Your task to perform on an android device: turn on bluetooth scan Image 0: 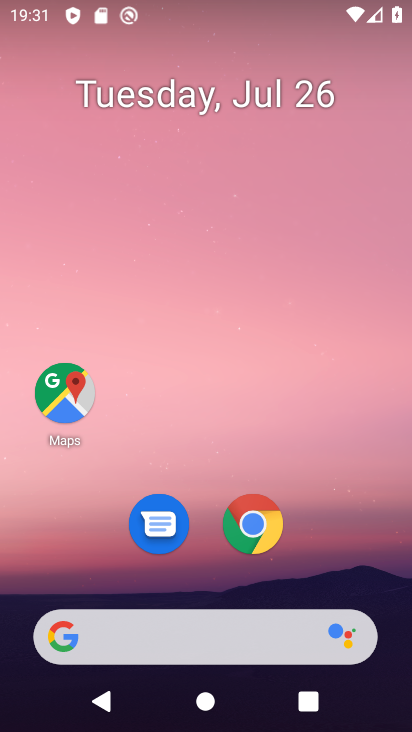
Step 0: press home button
Your task to perform on an android device: turn on bluetooth scan Image 1: 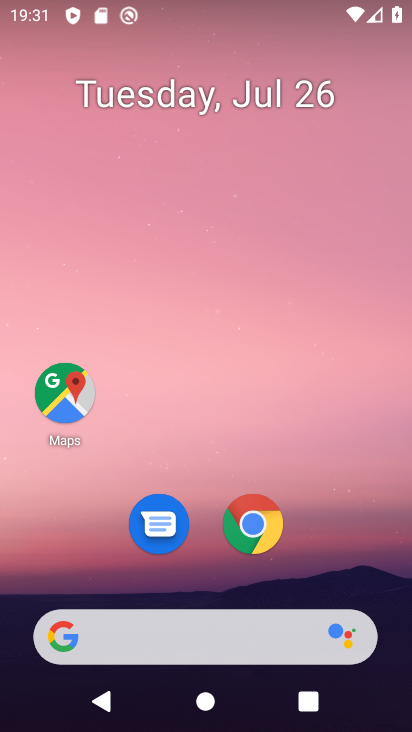
Step 1: drag from (205, 639) to (328, 174)
Your task to perform on an android device: turn on bluetooth scan Image 2: 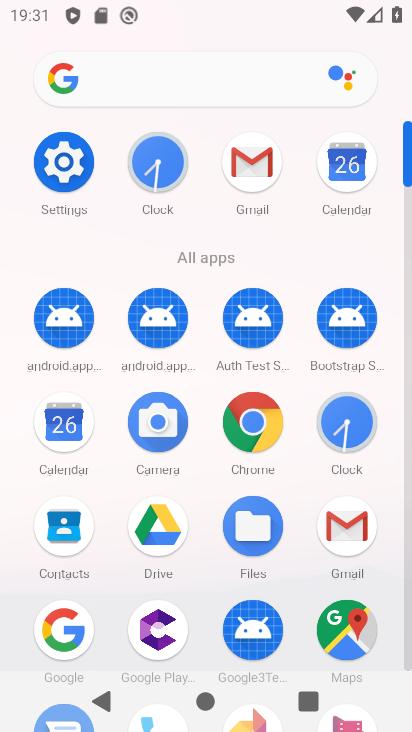
Step 2: click (63, 167)
Your task to perform on an android device: turn on bluetooth scan Image 3: 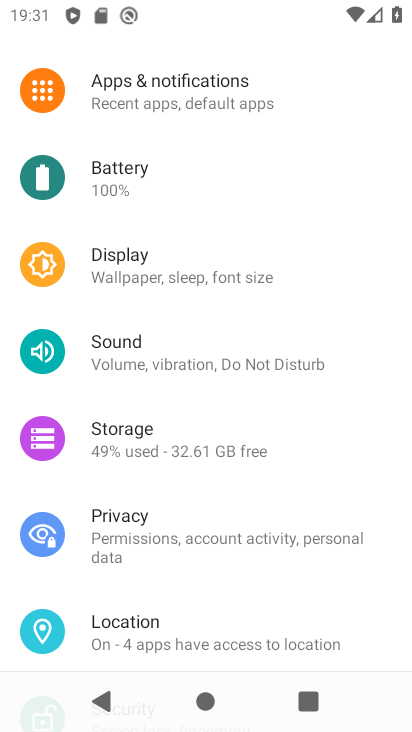
Step 3: click (155, 616)
Your task to perform on an android device: turn on bluetooth scan Image 4: 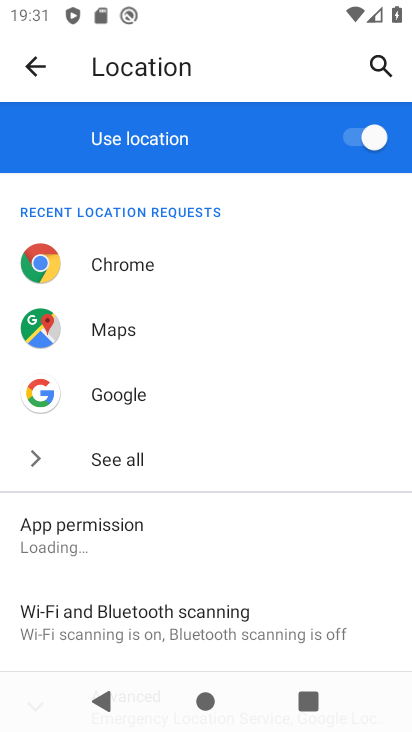
Step 4: drag from (250, 563) to (344, 236)
Your task to perform on an android device: turn on bluetooth scan Image 5: 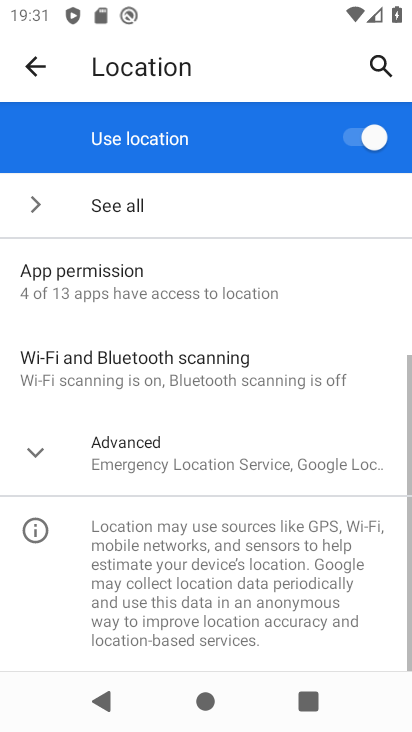
Step 5: click (183, 370)
Your task to perform on an android device: turn on bluetooth scan Image 6: 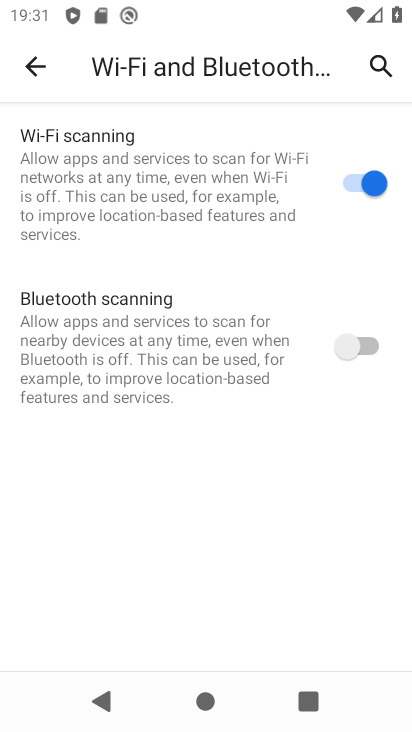
Step 6: click (361, 341)
Your task to perform on an android device: turn on bluetooth scan Image 7: 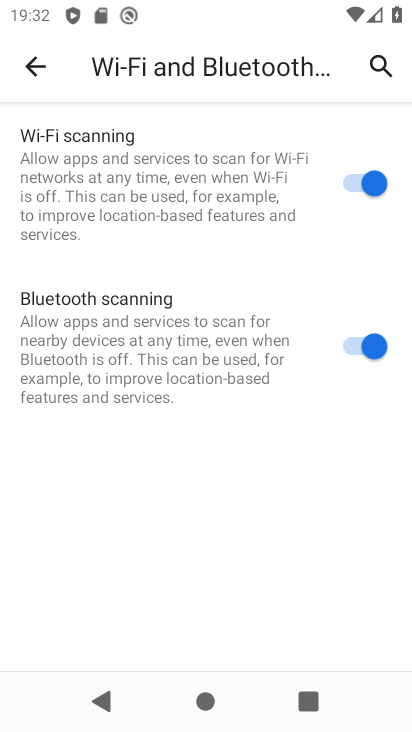
Step 7: task complete